Your task to perform on an android device: Turn off the flashlight Image 0: 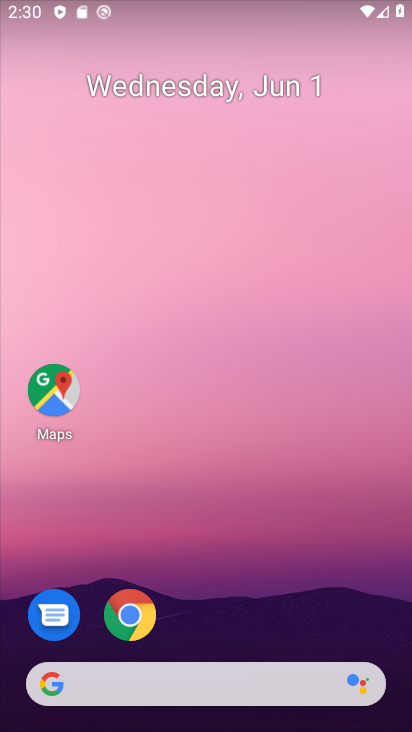
Step 0: drag from (255, 599) to (367, 640)
Your task to perform on an android device: Turn off the flashlight Image 1: 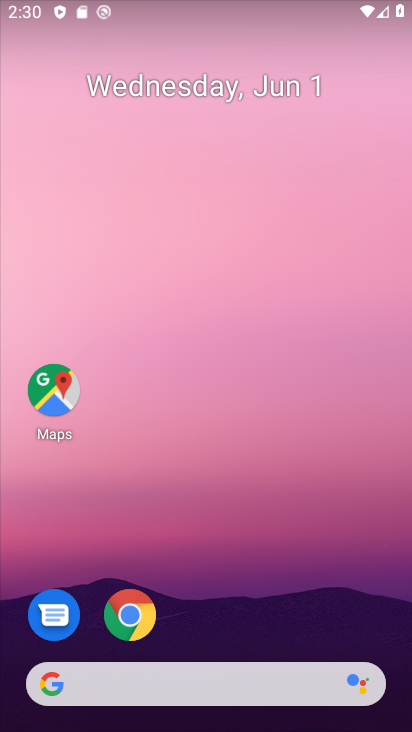
Step 1: drag from (293, 0) to (277, 403)
Your task to perform on an android device: Turn off the flashlight Image 2: 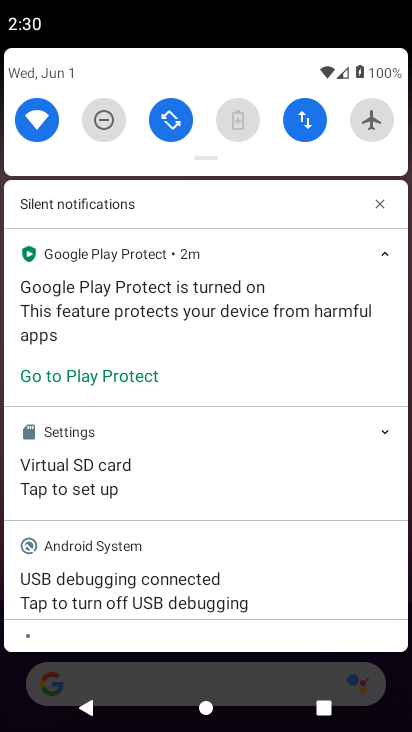
Step 2: drag from (211, 124) to (223, 470)
Your task to perform on an android device: Turn off the flashlight Image 3: 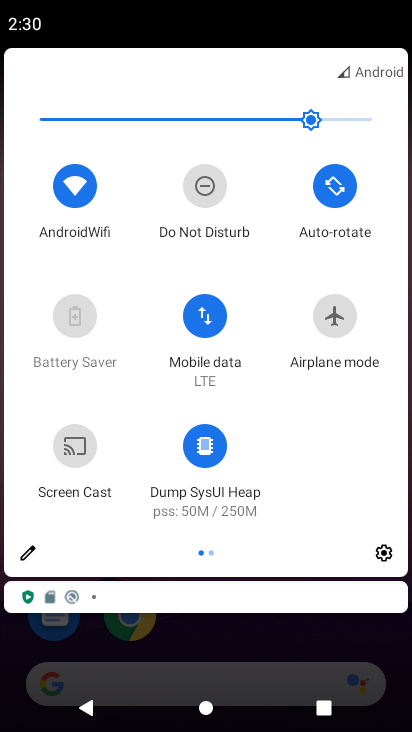
Step 3: click (23, 558)
Your task to perform on an android device: Turn off the flashlight Image 4: 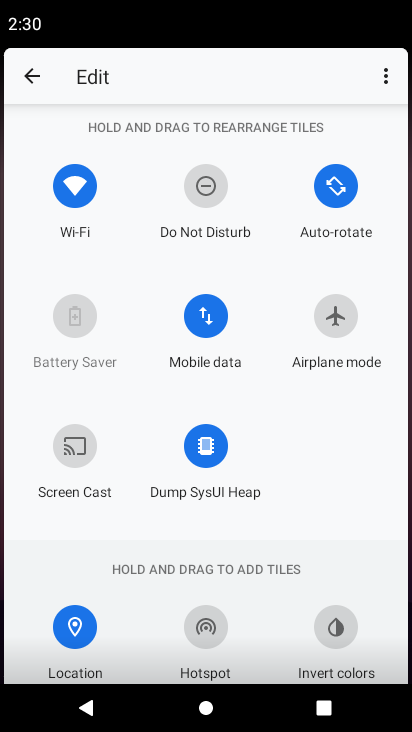
Step 4: task complete